Your task to perform on an android device: toggle pop-ups in chrome Image 0: 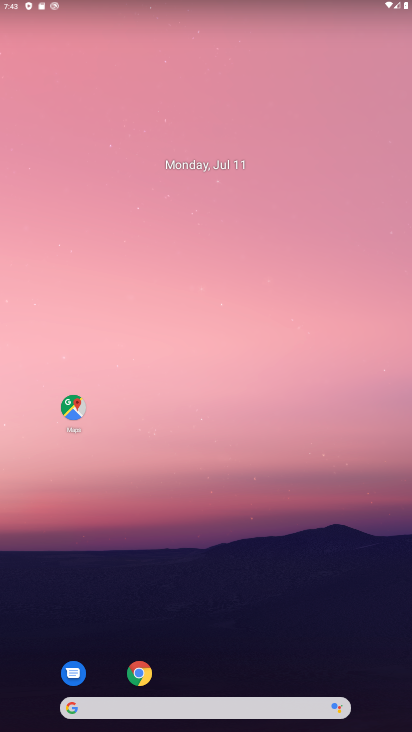
Step 0: drag from (224, 602) to (227, 83)
Your task to perform on an android device: toggle pop-ups in chrome Image 1: 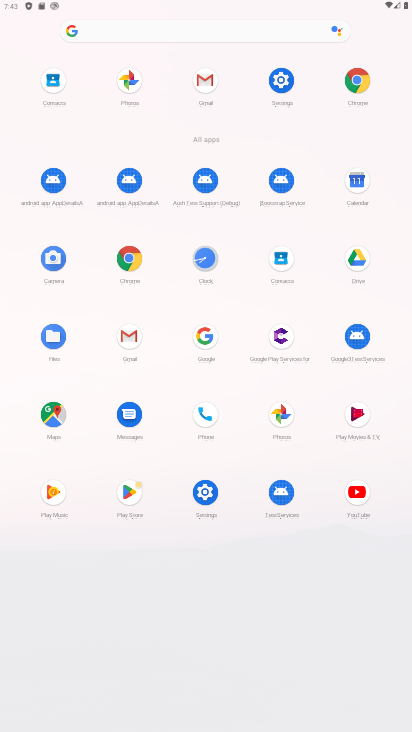
Step 1: click (359, 79)
Your task to perform on an android device: toggle pop-ups in chrome Image 2: 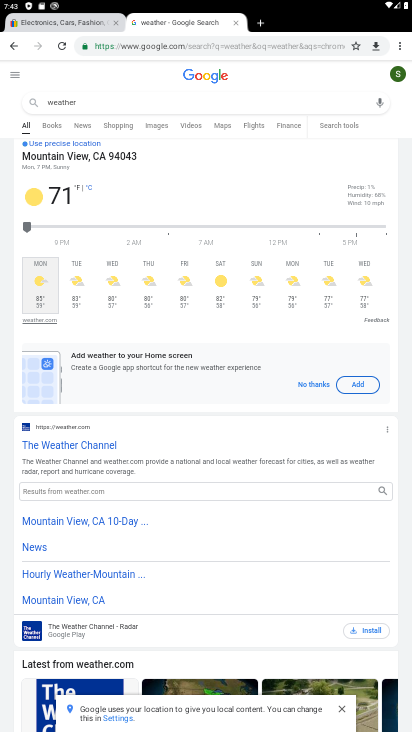
Step 2: drag from (401, 47) to (309, 276)
Your task to perform on an android device: toggle pop-ups in chrome Image 3: 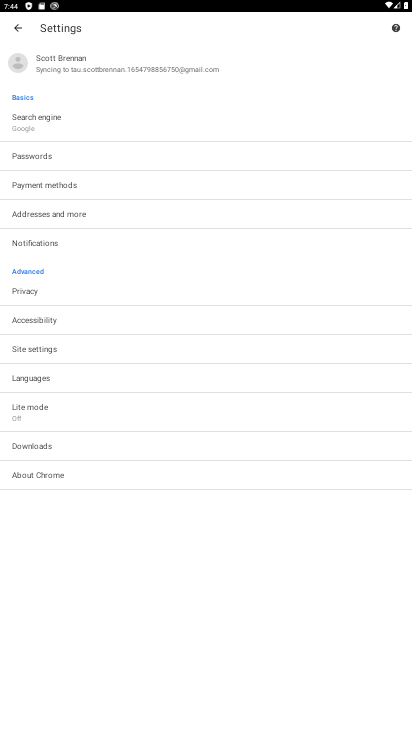
Step 3: click (44, 352)
Your task to perform on an android device: toggle pop-ups in chrome Image 4: 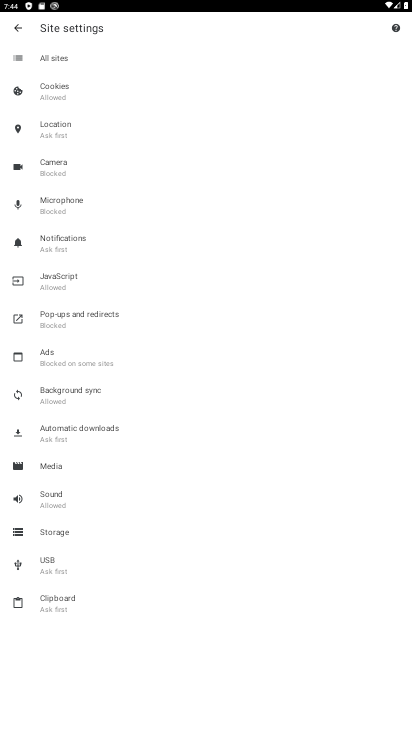
Step 4: click (65, 316)
Your task to perform on an android device: toggle pop-ups in chrome Image 5: 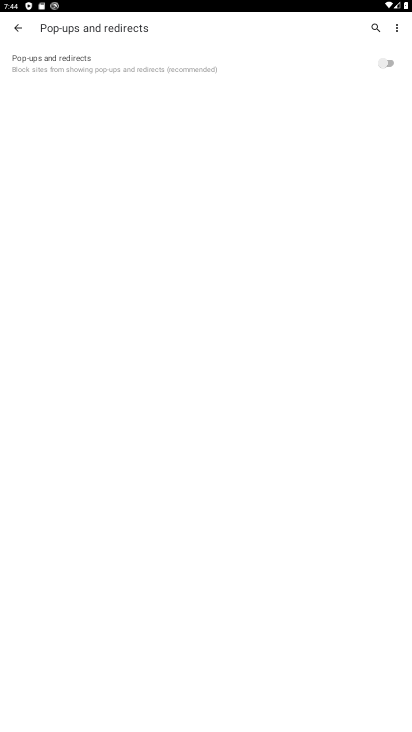
Step 5: click (387, 64)
Your task to perform on an android device: toggle pop-ups in chrome Image 6: 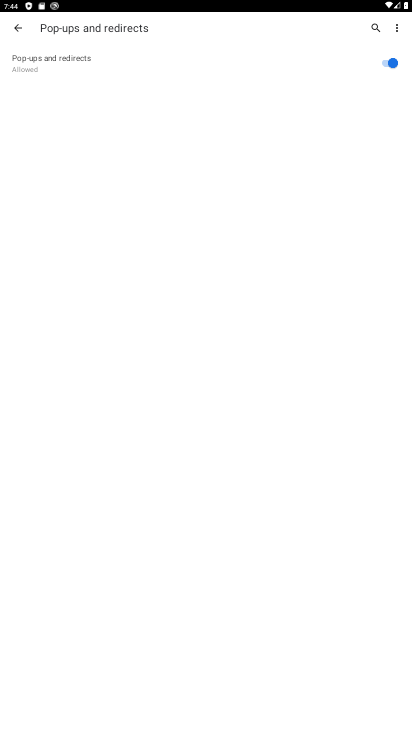
Step 6: task complete